Your task to perform on an android device: see sites visited before in the chrome app Image 0: 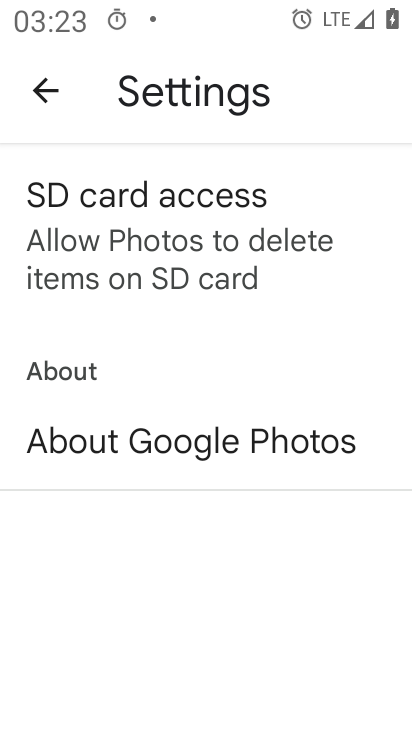
Step 0: press back button
Your task to perform on an android device: see sites visited before in the chrome app Image 1: 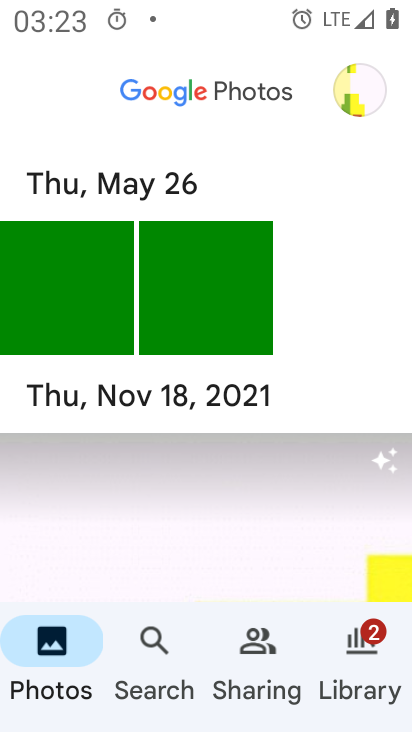
Step 1: press home button
Your task to perform on an android device: see sites visited before in the chrome app Image 2: 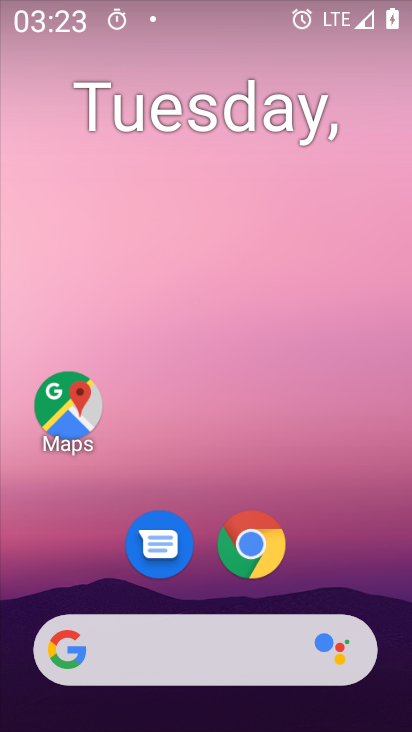
Step 2: drag from (326, 508) to (249, 99)
Your task to perform on an android device: see sites visited before in the chrome app Image 3: 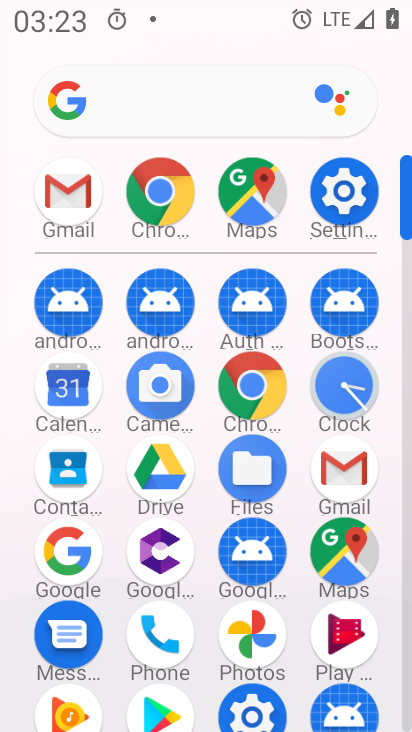
Step 3: drag from (15, 575) to (19, 245)
Your task to perform on an android device: see sites visited before in the chrome app Image 4: 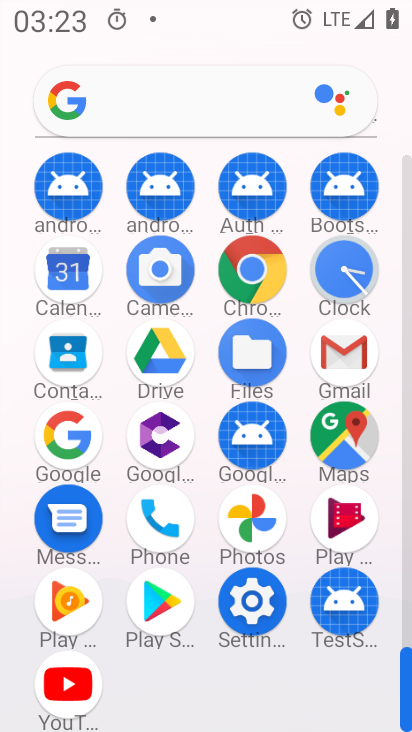
Step 4: click (248, 270)
Your task to perform on an android device: see sites visited before in the chrome app Image 5: 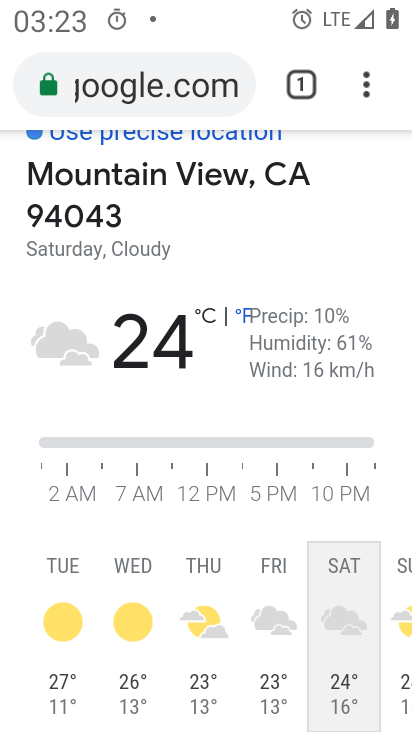
Step 5: click (163, 70)
Your task to perform on an android device: see sites visited before in the chrome app Image 6: 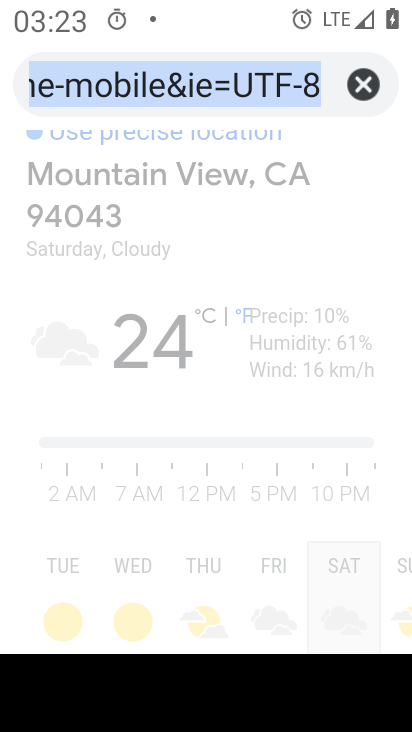
Step 6: click (359, 81)
Your task to perform on an android device: see sites visited before in the chrome app Image 7: 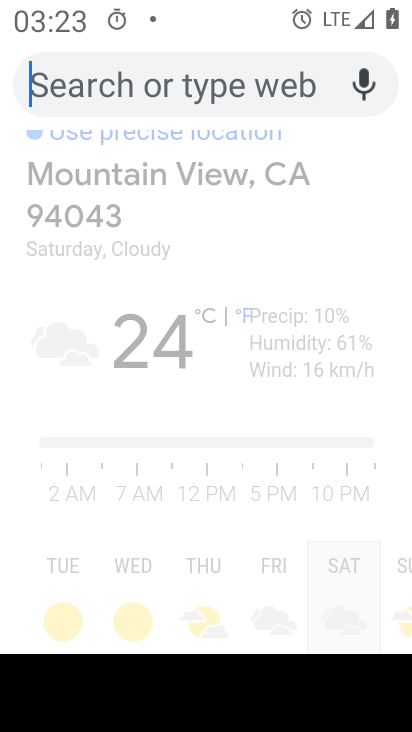
Step 7: task complete